Your task to perform on an android device: turn on the 24-hour format for clock Image 0: 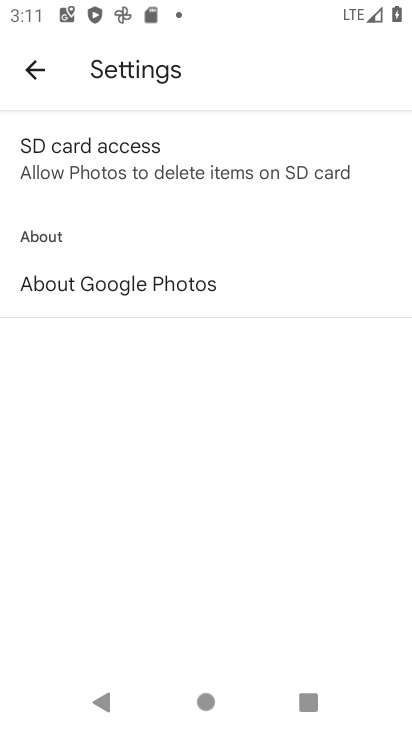
Step 0: press home button
Your task to perform on an android device: turn on the 24-hour format for clock Image 1: 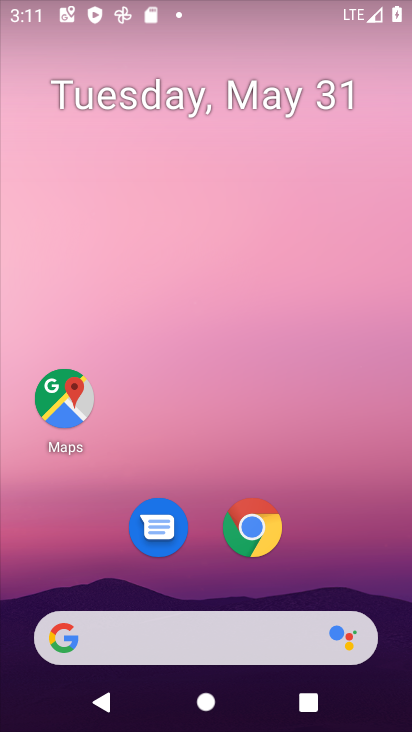
Step 1: drag from (340, 555) to (317, 103)
Your task to perform on an android device: turn on the 24-hour format for clock Image 2: 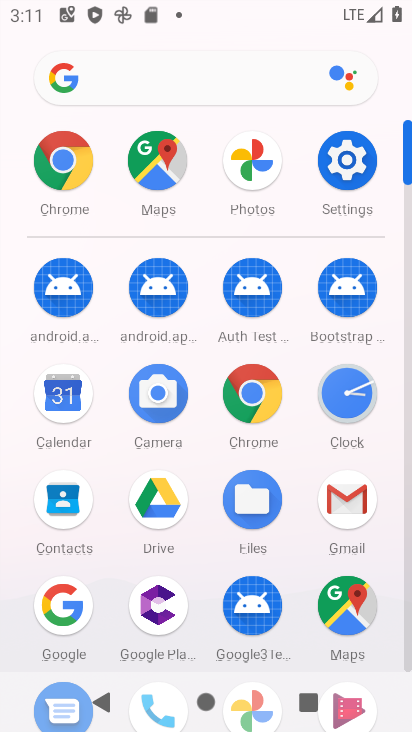
Step 2: click (351, 404)
Your task to perform on an android device: turn on the 24-hour format for clock Image 3: 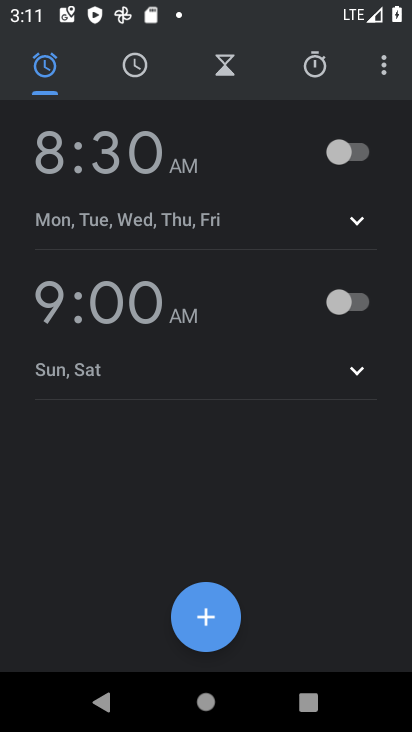
Step 3: click (388, 81)
Your task to perform on an android device: turn on the 24-hour format for clock Image 4: 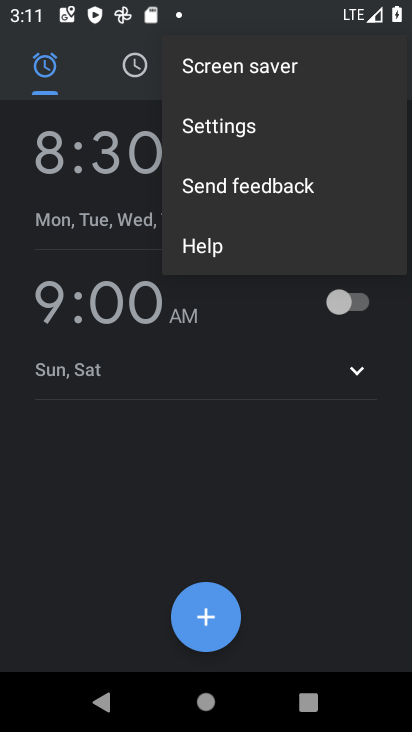
Step 4: click (253, 132)
Your task to perform on an android device: turn on the 24-hour format for clock Image 5: 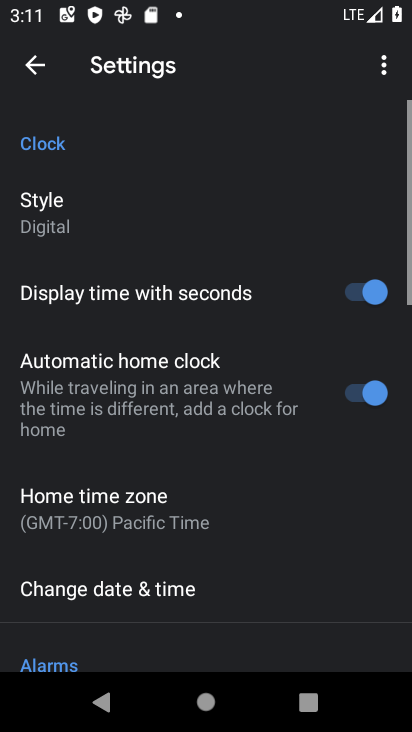
Step 5: drag from (197, 540) to (215, 218)
Your task to perform on an android device: turn on the 24-hour format for clock Image 6: 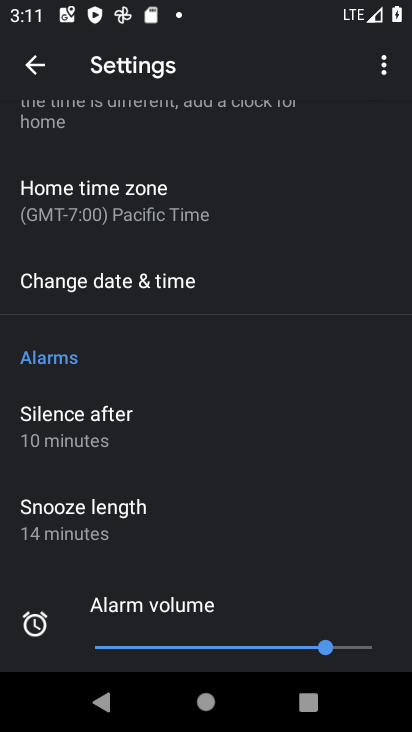
Step 6: click (107, 281)
Your task to perform on an android device: turn on the 24-hour format for clock Image 7: 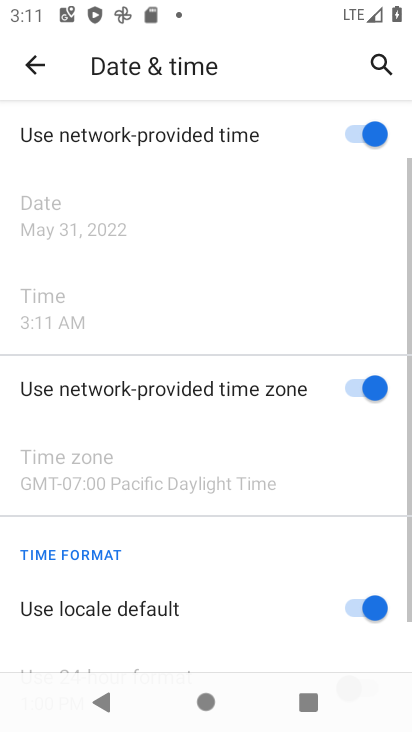
Step 7: drag from (133, 532) to (146, 212)
Your task to perform on an android device: turn on the 24-hour format for clock Image 8: 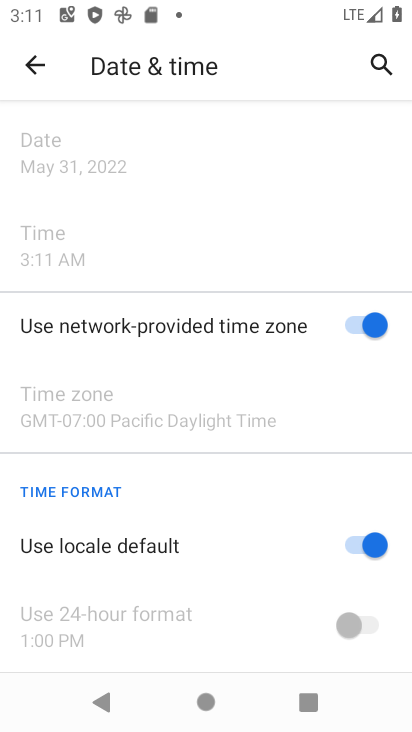
Step 8: click (365, 540)
Your task to perform on an android device: turn on the 24-hour format for clock Image 9: 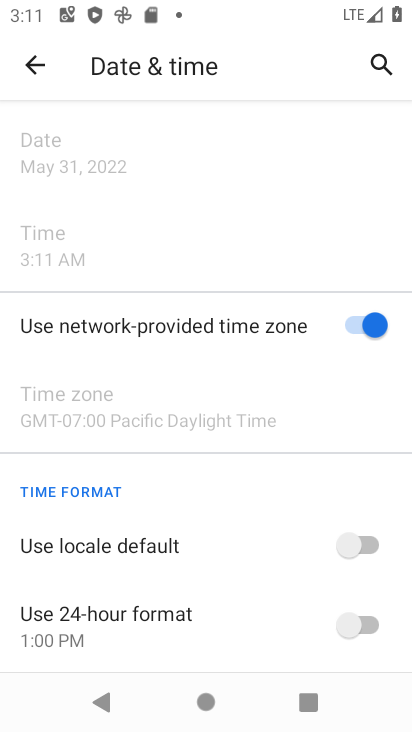
Step 9: task complete